Your task to perform on an android device: open chrome privacy settings Image 0: 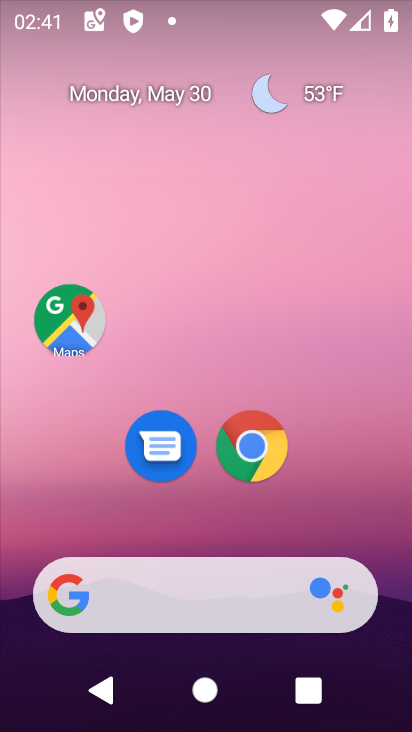
Step 0: click (247, 455)
Your task to perform on an android device: open chrome privacy settings Image 1: 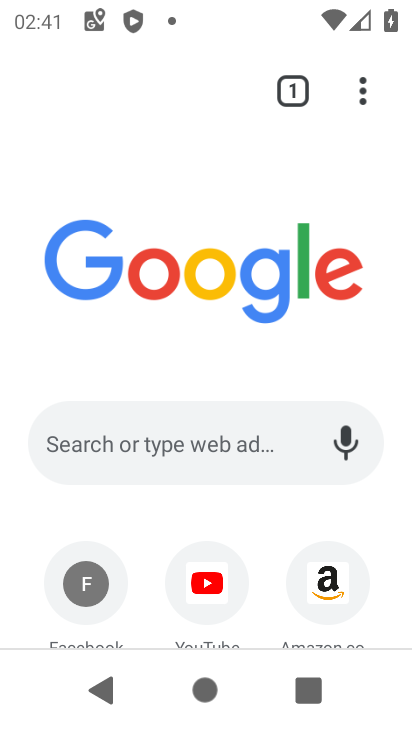
Step 1: drag from (389, 92) to (266, 491)
Your task to perform on an android device: open chrome privacy settings Image 2: 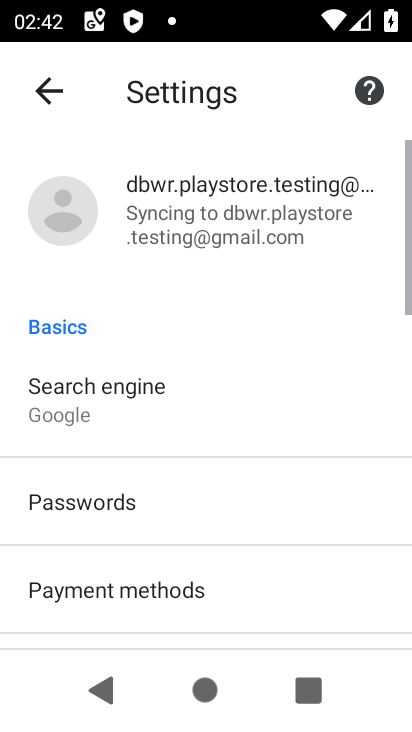
Step 2: drag from (209, 586) to (277, 199)
Your task to perform on an android device: open chrome privacy settings Image 3: 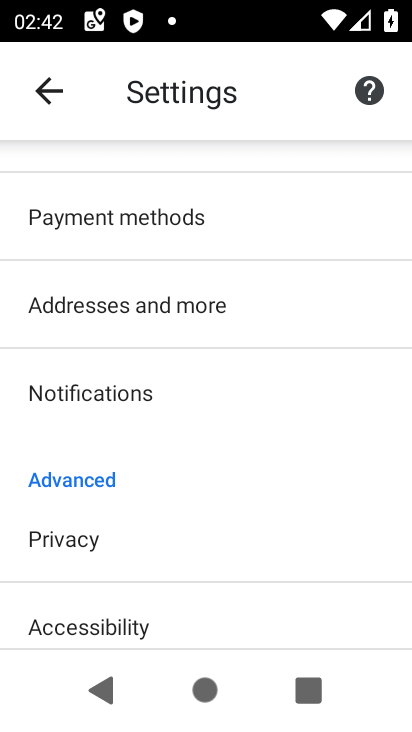
Step 3: click (110, 554)
Your task to perform on an android device: open chrome privacy settings Image 4: 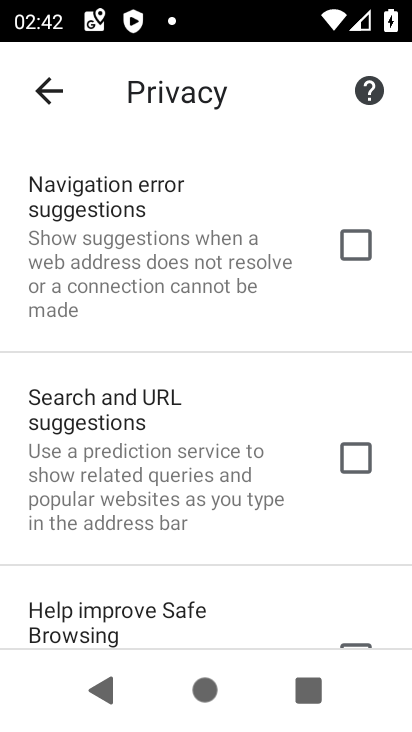
Step 4: task complete